Your task to perform on an android device: turn off notifications in google photos Image 0: 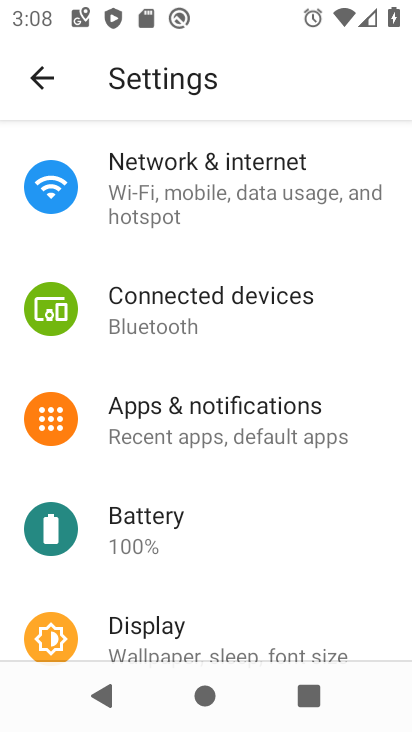
Step 0: press home button
Your task to perform on an android device: turn off notifications in google photos Image 1: 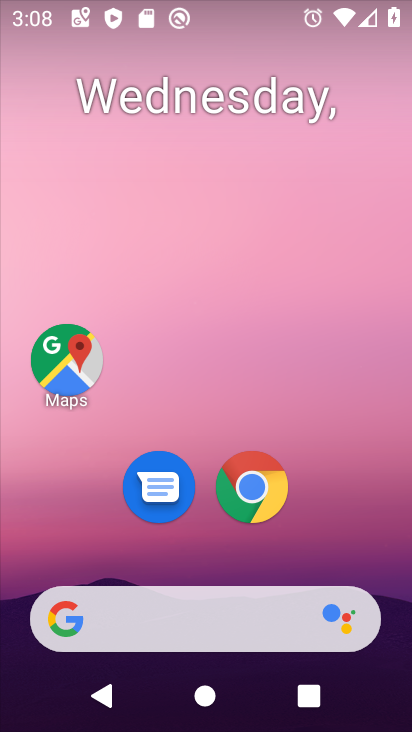
Step 1: drag from (383, 545) to (339, 218)
Your task to perform on an android device: turn off notifications in google photos Image 2: 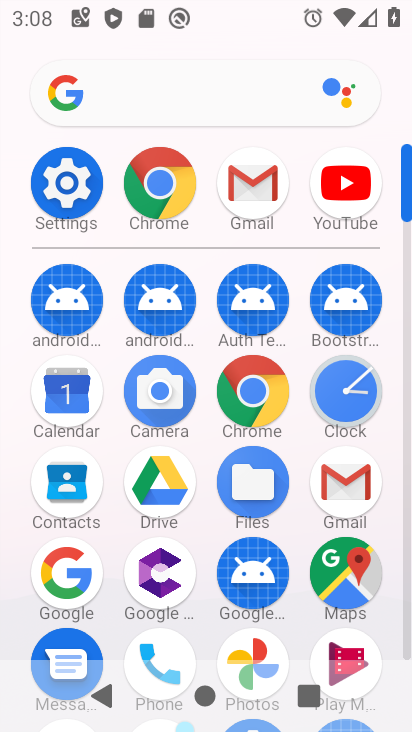
Step 2: drag from (299, 512) to (292, 336)
Your task to perform on an android device: turn off notifications in google photos Image 3: 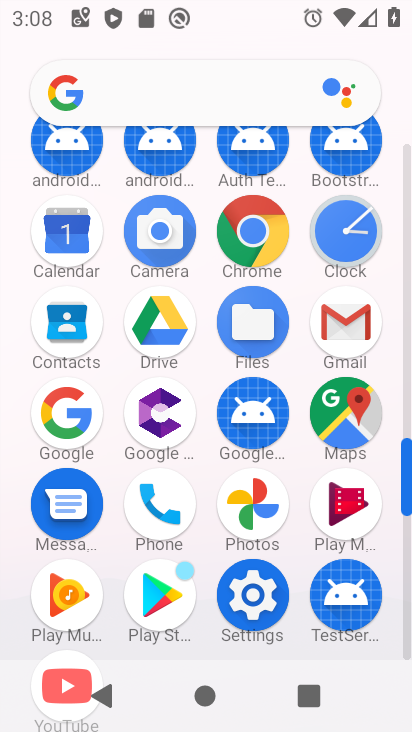
Step 3: click (258, 515)
Your task to perform on an android device: turn off notifications in google photos Image 4: 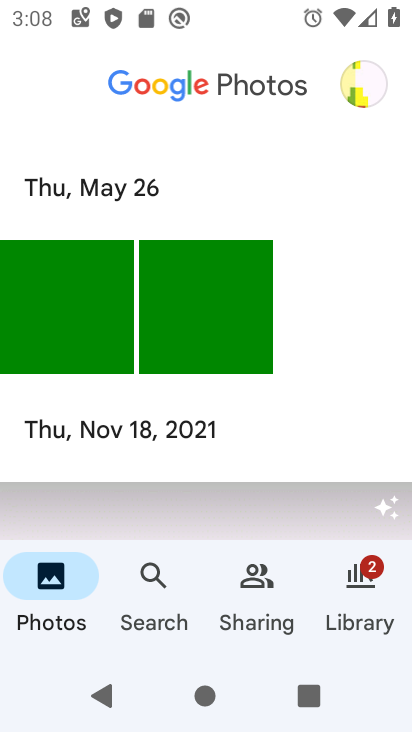
Step 4: click (359, 89)
Your task to perform on an android device: turn off notifications in google photos Image 5: 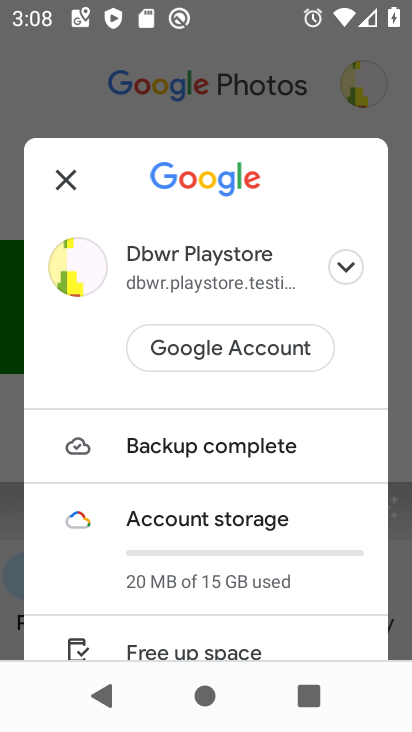
Step 5: drag from (339, 469) to (333, 362)
Your task to perform on an android device: turn off notifications in google photos Image 6: 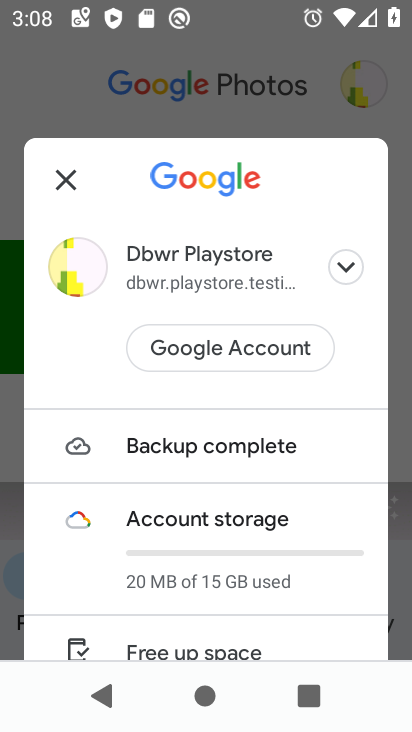
Step 6: drag from (314, 507) to (316, 333)
Your task to perform on an android device: turn off notifications in google photos Image 7: 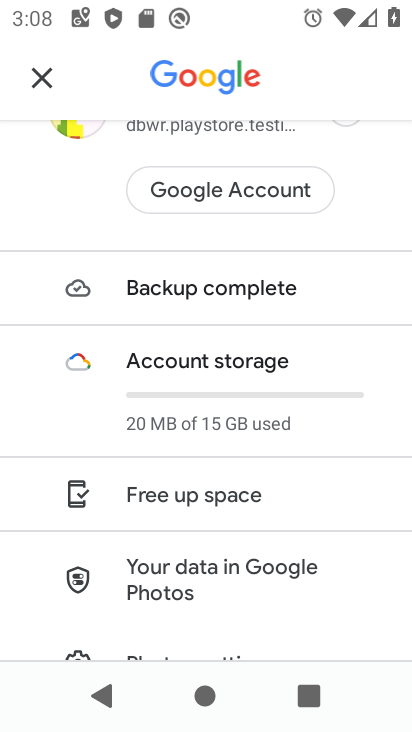
Step 7: drag from (327, 523) to (319, 372)
Your task to perform on an android device: turn off notifications in google photos Image 8: 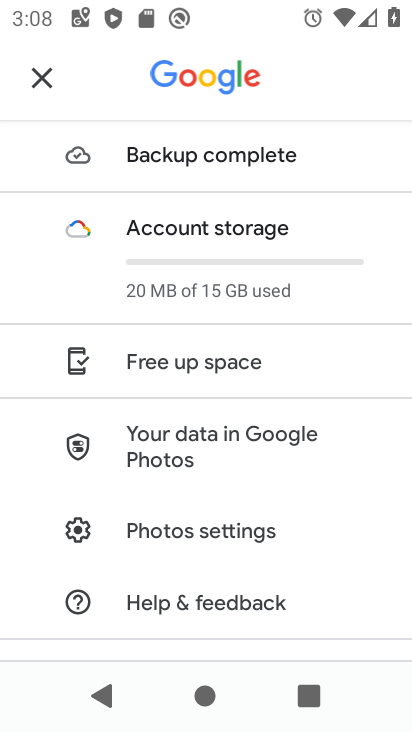
Step 8: drag from (326, 548) to (332, 402)
Your task to perform on an android device: turn off notifications in google photos Image 9: 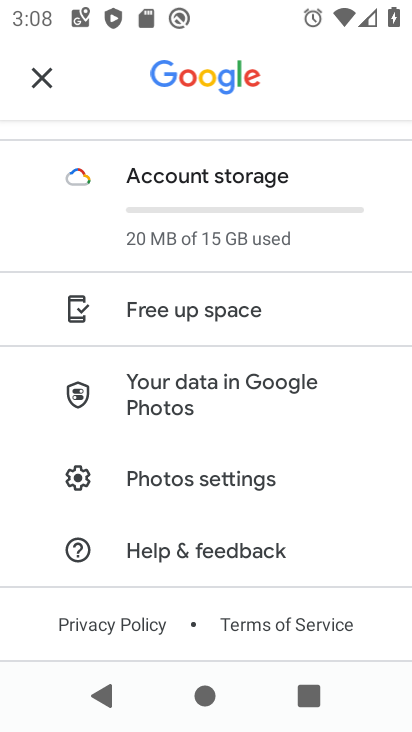
Step 9: click (250, 489)
Your task to perform on an android device: turn off notifications in google photos Image 10: 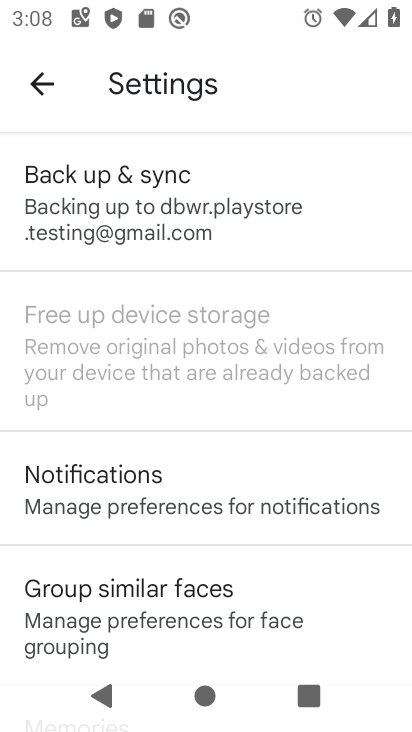
Step 10: drag from (318, 568) to (333, 384)
Your task to perform on an android device: turn off notifications in google photos Image 11: 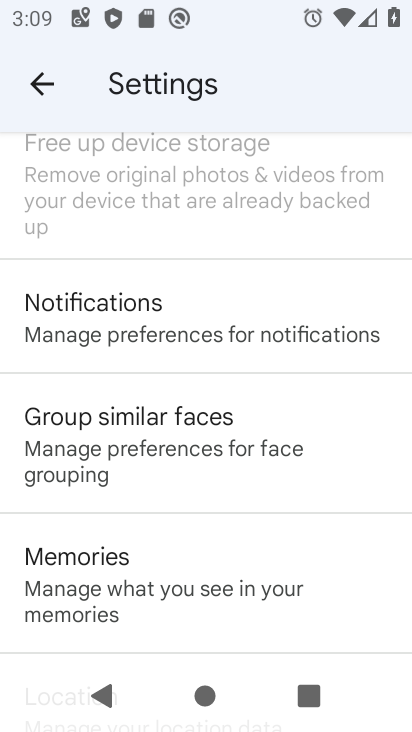
Step 11: drag from (339, 514) to (323, 386)
Your task to perform on an android device: turn off notifications in google photos Image 12: 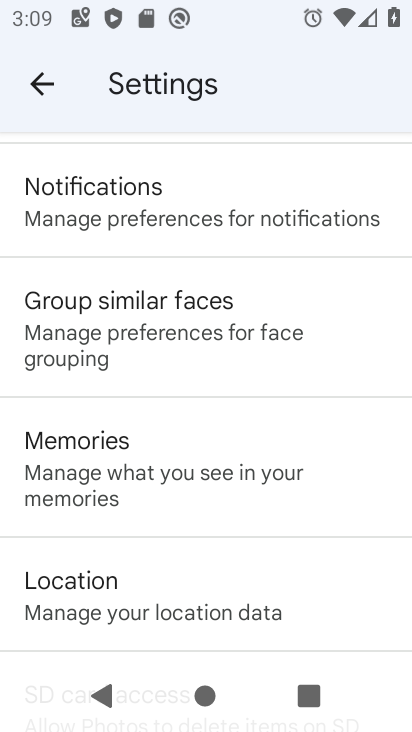
Step 12: click (227, 185)
Your task to perform on an android device: turn off notifications in google photos Image 13: 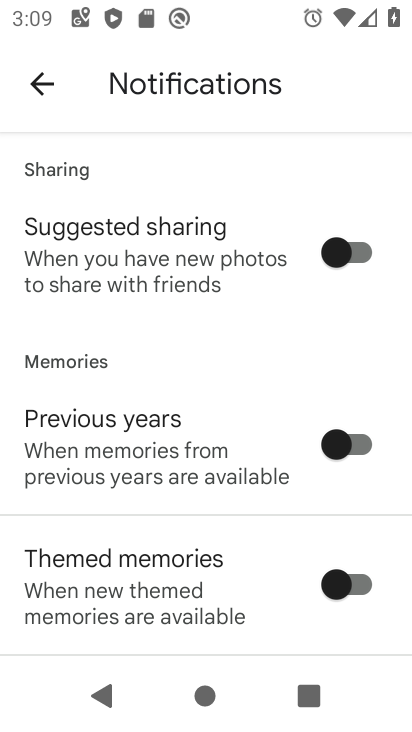
Step 13: drag from (247, 380) to (242, 274)
Your task to perform on an android device: turn off notifications in google photos Image 14: 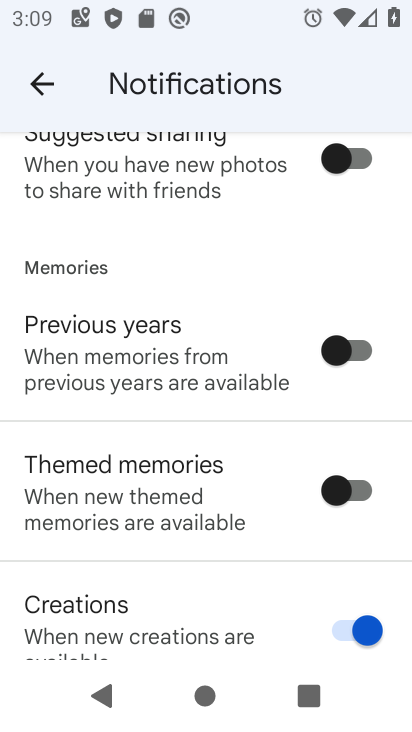
Step 14: drag from (267, 467) to (261, 354)
Your task to perform on an android device: turn off notifications in google photos Image 15: 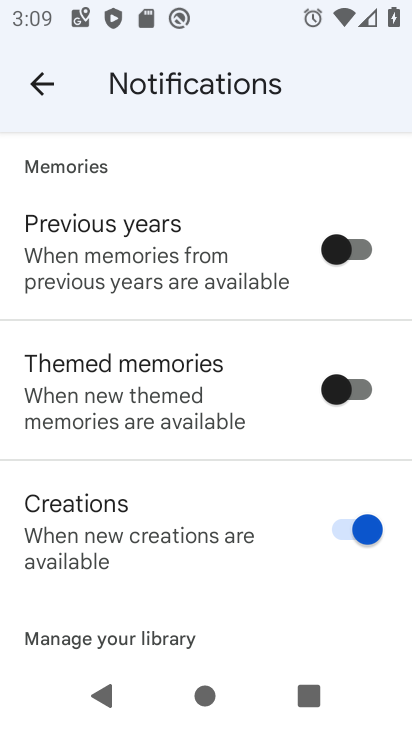
Step 15: drag from (273, 442) to (272, 384)
Your task to perform on an android device: turn off notifications in google photos Image 16: 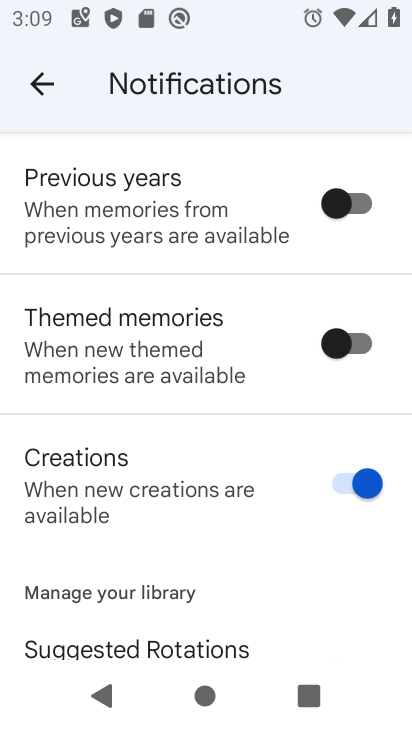
Step 16: drag from (279, 452) to (285, 396)
Your task to perform on an android device: turn off notifications in google photos Image 17: 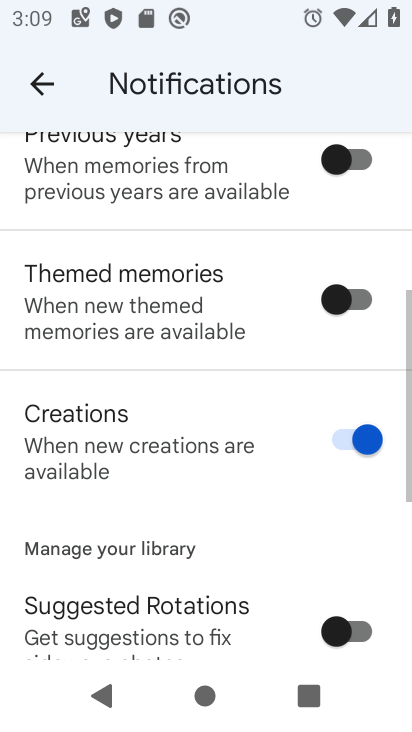
Step 17: drag from (276, 472) to (287, 397)
Your task to perform on an android device: turn off notifications in google photos Image 18: 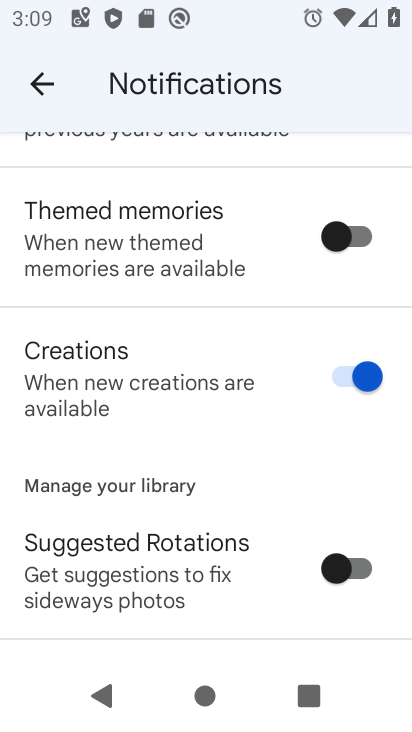
Step 18: drag from (272, 494) to (277, 430)
Your task to perform on an android device: turn off notifications in google photos Image 19: 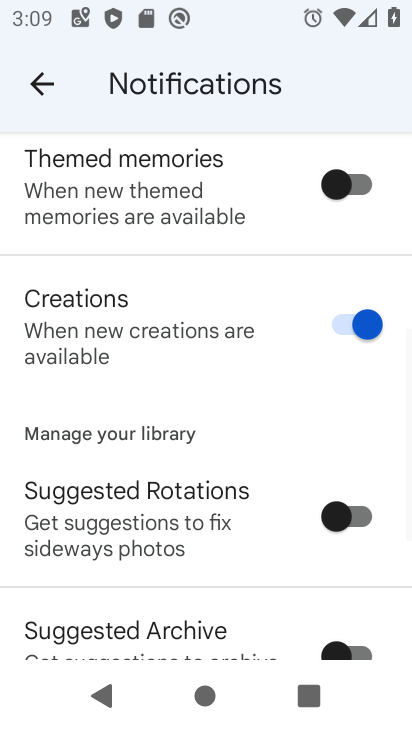
Step 19: drag from (263, 507) to (273, 419)
Your task to perform on an android device: turn off notifications in google photos Image 20: 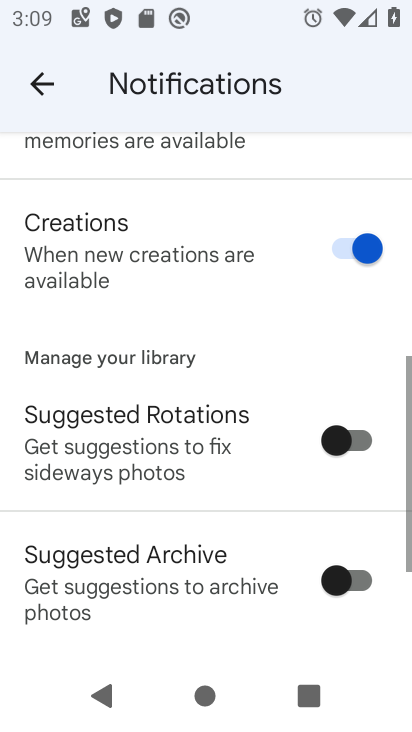
Step 20: drag from (263, 522) to (273, 434)
Your task to perform on an android device: turn off notifications in google photos Image 21: 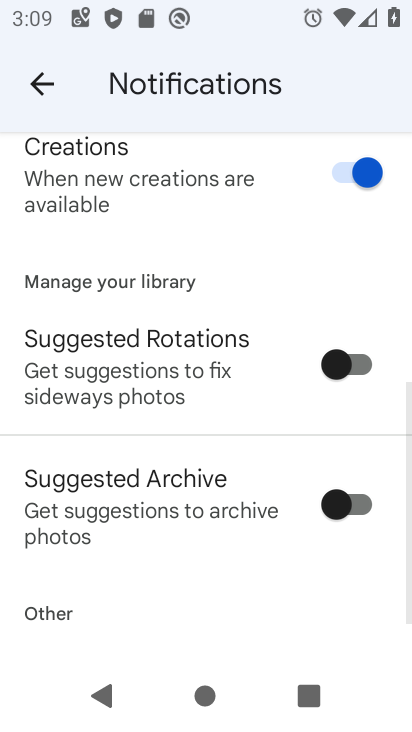
Step 21: drag from (255, 565) to (279, 388)
Your task to perform on an android device: turn off notifications in google photos Image 22: 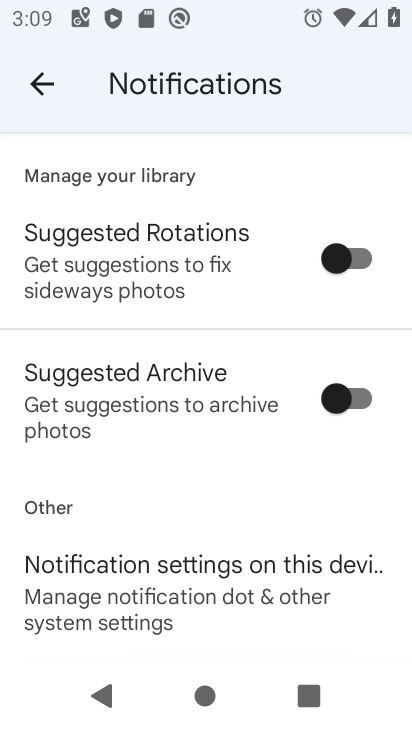
Step 22: click (254, 593)
Your task to perform on an android device: turn off notifications in google photos Image 23: 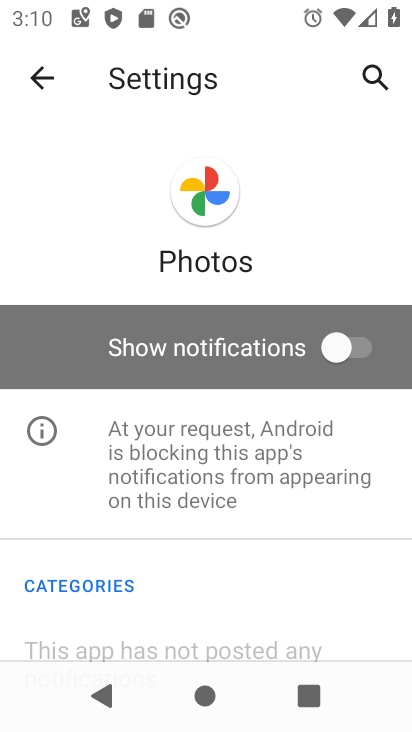
Step 23: task complete